Your task to perform on an android device: turn on notifications settings in the gmail app Image 0: 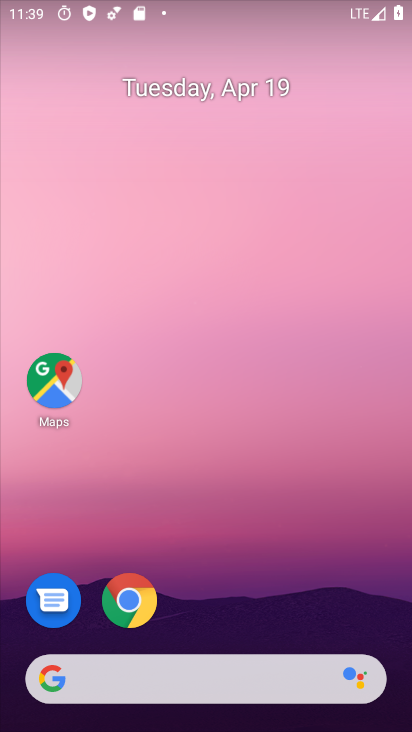
Step 0: drag from (349, 625) to (388, 9)
Your task to perform on an android device: turn on notifications settings in the gmail app Image 1: 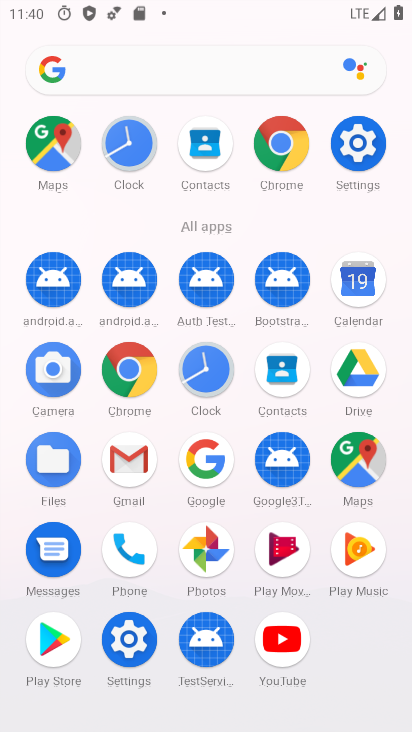
Step 1: click (129, 471)
Your task to perform on an android device: turn on notifications settings in the gmail app Image 2: 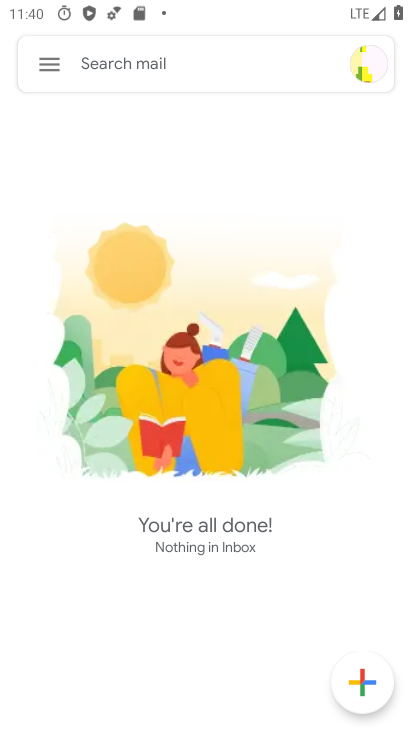
Step 2: click (52, 65)
Your task to perform on an android device: turn on notifications settings in the gmail app Image 3: 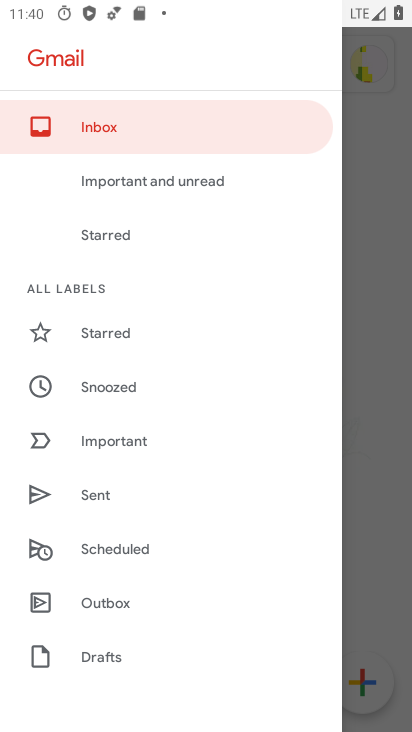
Step 3: drag from (149, 627) to (187, 199)
Your task to perform on an android device: turn on notifications settings in the gmail app Image 4: 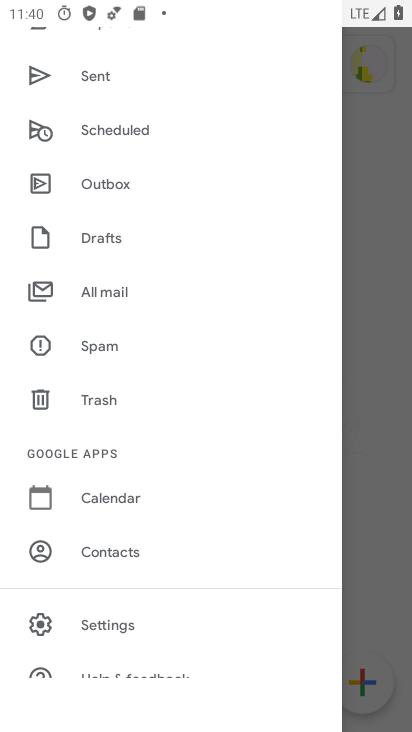
Step 4: drag from (173, 582) to (173, 394)
Your task to perform on an android device: turn on notifications settings in the gmail app Image 5: 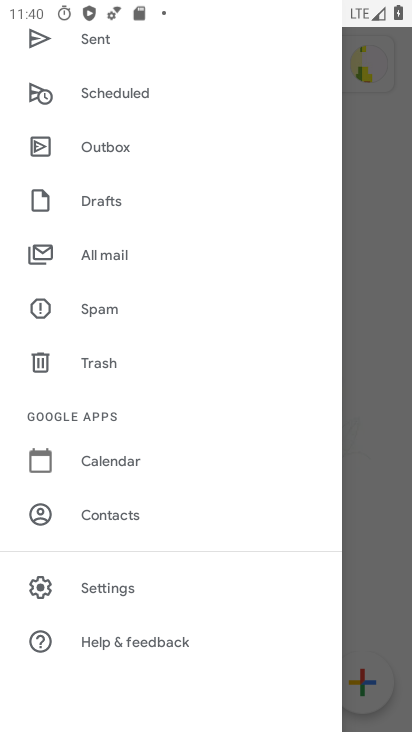
Step 5: click (100, 589)
Your task to perform on an android device: turn on notifications settings in the gmail app Image 6: 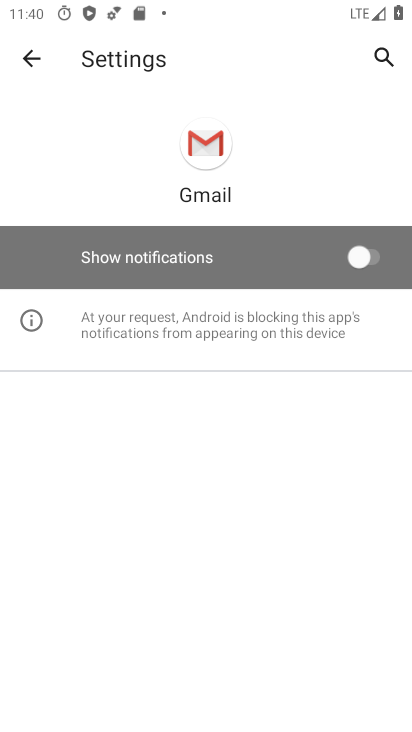
Step 6: click (342, 265)
Your task to perform on an android device: turn on notifications settings in the gmail app Image 7: 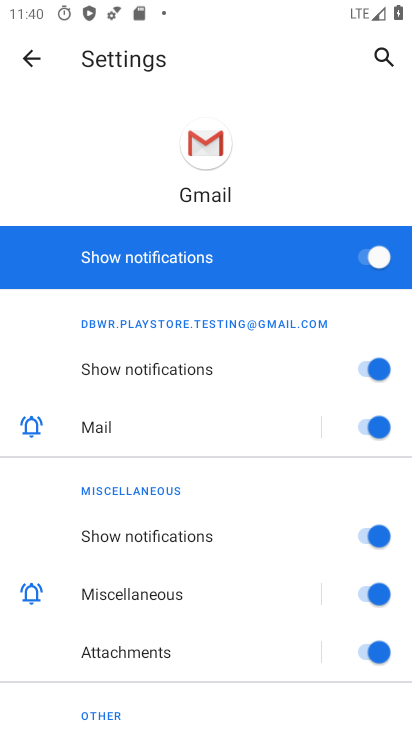
Step 7: task complete